Your task to perform on an android device: turn off airplane mode Image 0: 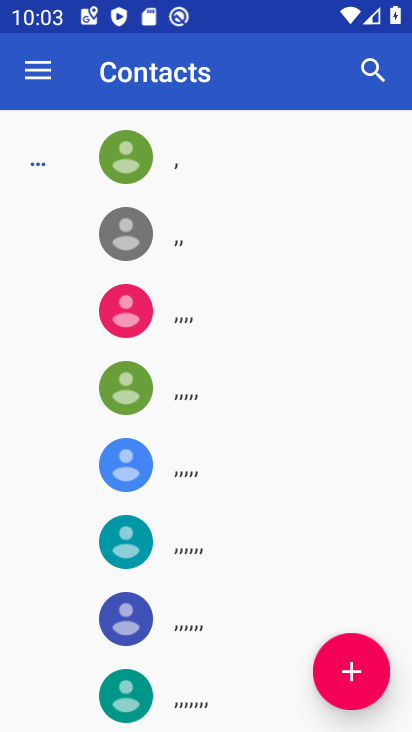
Step 0: press home button
Your task to perform on an android device: turn off airplane mode Image 1: 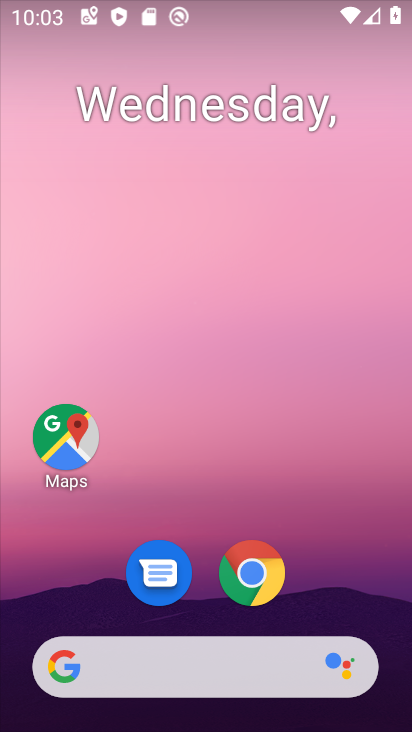
Step 1: drag from (361, 552) to (386, 124)
Your task to perform on an android device: turn off airplane mode Image 2: 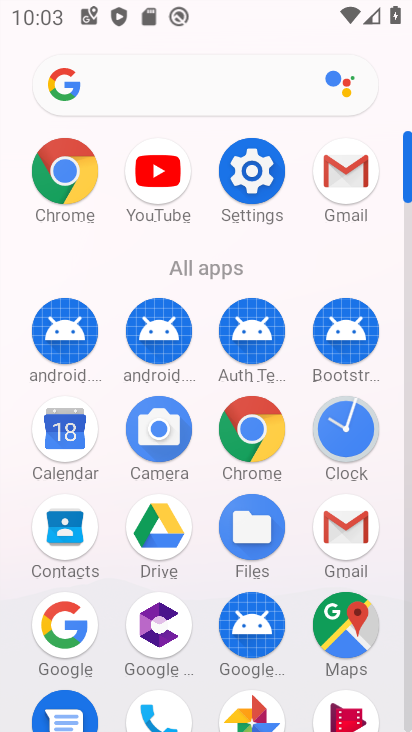
Step 2: click (259, 191)
Your task to perform on an android device: turn off airplane mode Image 3: 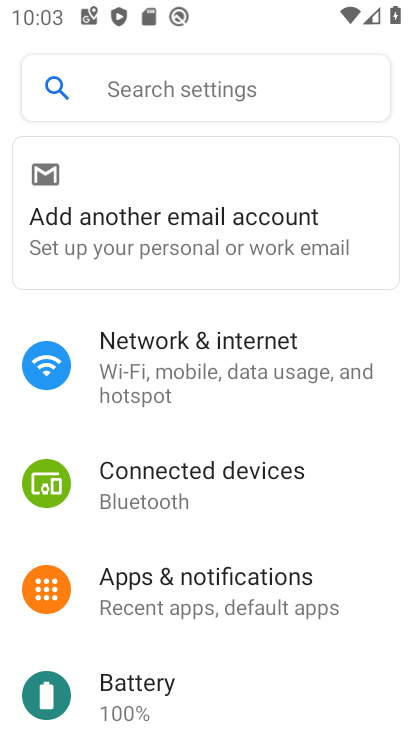
Step 3: drag from (370, 645) to (364, 485)
Your task to perform on an android device: turn off airplane mode Image 4: 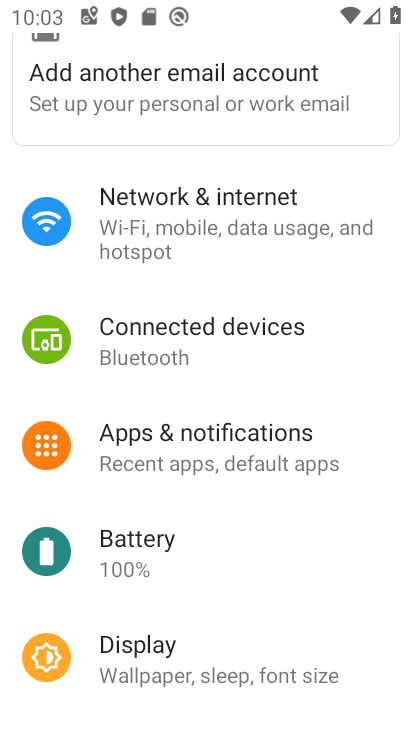
Step 4: drag from (357, 621) to (361, 507)
Your task to perform on an android device: turn off airplane mode Image 5: 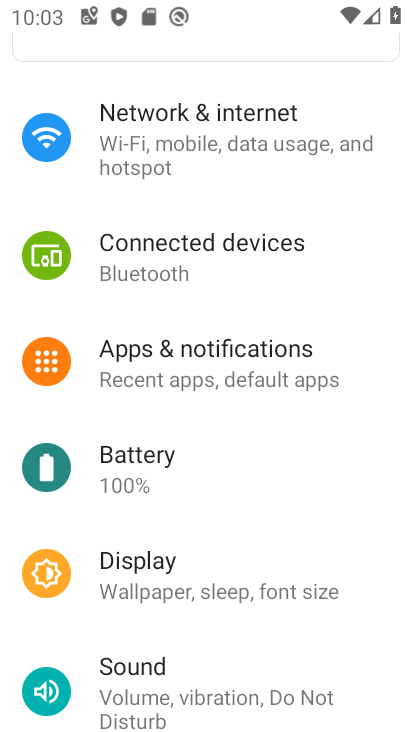
Step 5: drag from (344, 637) to (354, 521)
Your task to perform on an android device: turn off airplane mode Image 6: 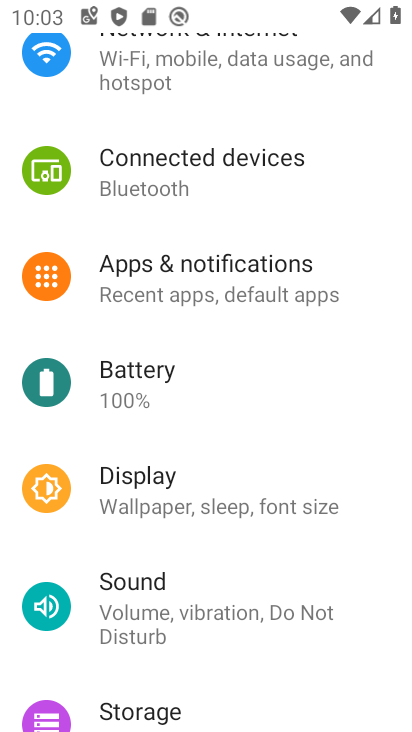
Step 6: drag from (345, 649) to (351, 562)
Your task to perform on an android device: turn off airplane mode Image 7: 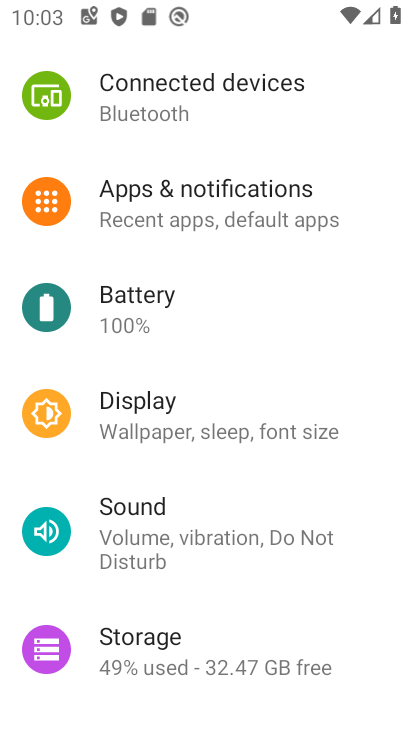
Step 7: drag from (336, 629) to (344, 492)
Your task to perform on an android device: turn off airplane mode Image 8: 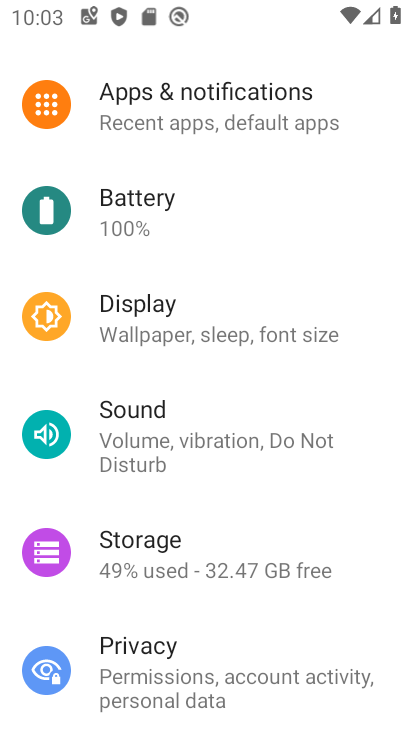
Step 8: drag from (352, 621) to (369, 529)
Your task to perform on an android device: turn off airplane mode Image 9: 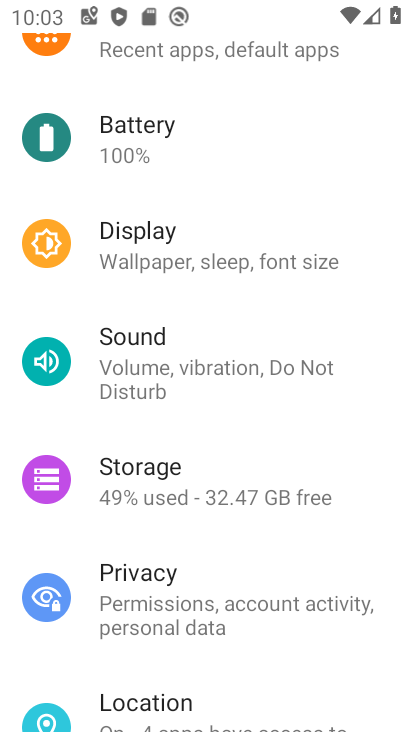
Step 9: drag from (350, 660) to (353, 523)
Your task to perform on an android device: turn off airplane mode Image 10: 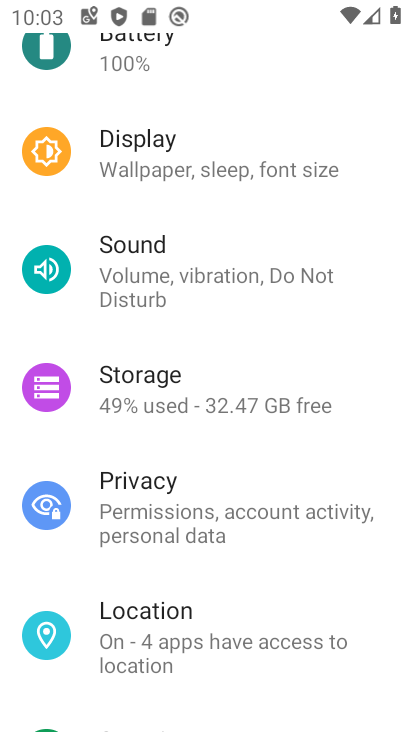
Step 10: drag from (350, 688) to (366, 541)
Your task to perform on an android device: turn off airplane mode Image 11: 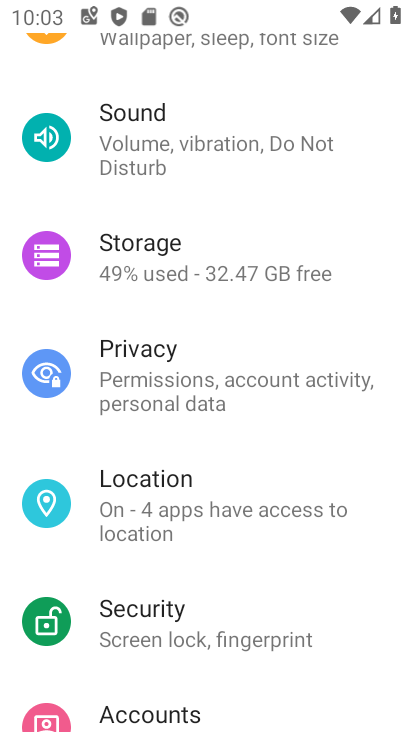
Step 11: drag from (360, 657) to (363, 546)
Your task to perform on an android device: turn off airplane mode Image 12: 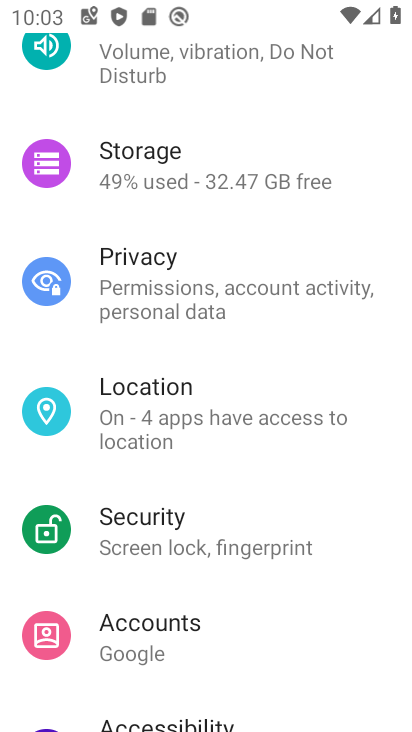
Step 12: drag from (356, 661) to (354, 573)
Your task to perform on an android device: turn off airplane mode Image 13: 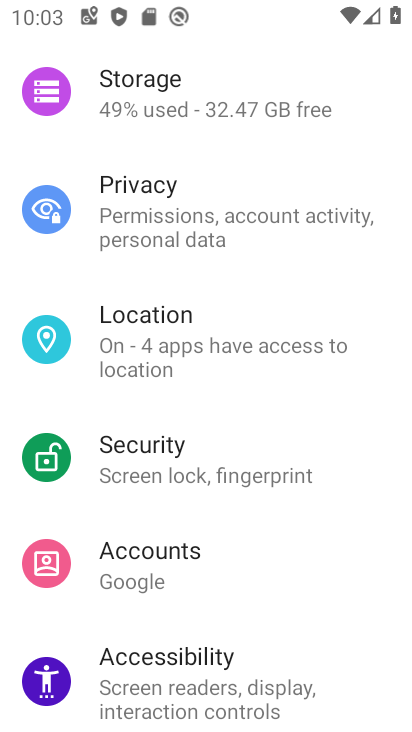
Step 13: drag from (355, 676) to (357, 549)
Your task to perform on an android device: turn off airplane mode Image 14: 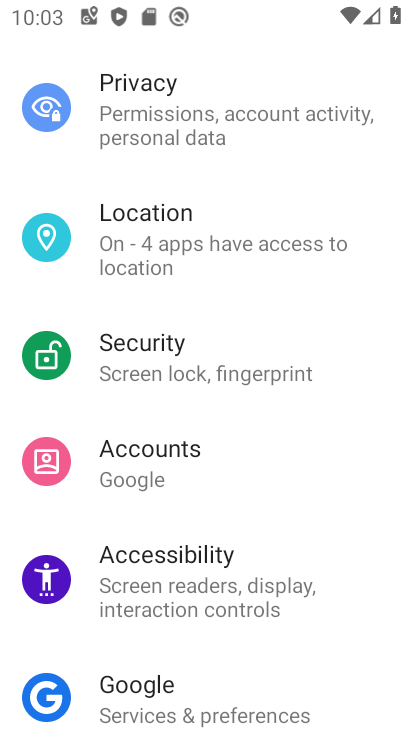
Step 14: drag from (362, 562) to (379, 366)
Your task to perform on an android device: turn off airplane mode Image 15: 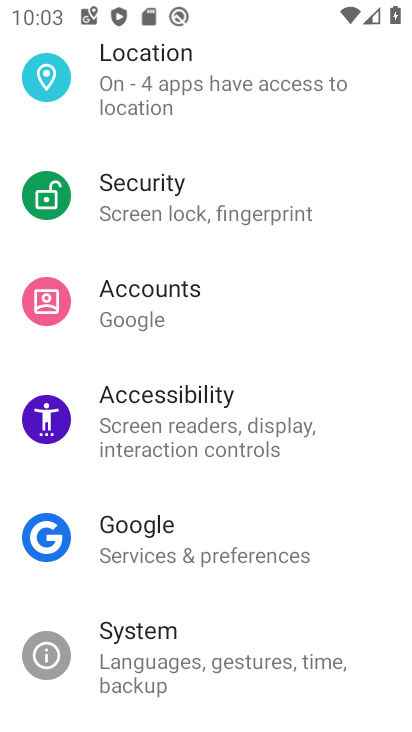
Step 15: drag from (364, 555) to (365, 379)
Your task to perform on an android device: turn off airplane mode Image 16: 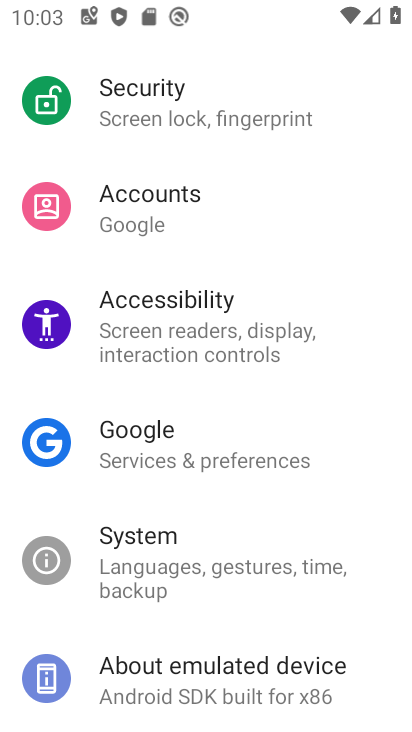
Step 16: drag from (353, 556) to (357, 391)
Your task to perform on an android device: turn off airplane mode Image 17: 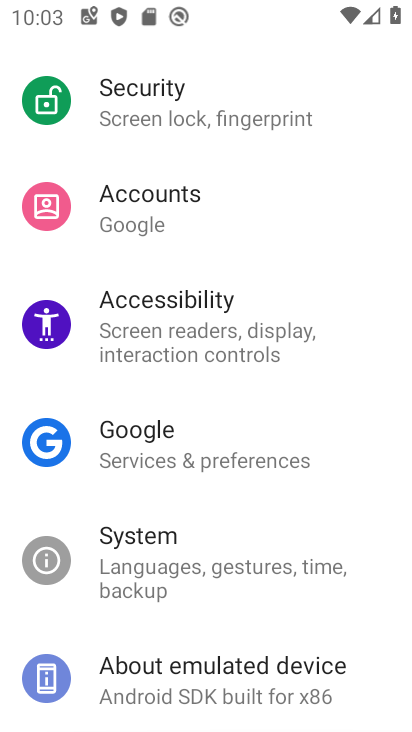
Step 17: drag from (351, 254) to (354, 439)
Your task to perform on an android device: turn off airplane mode Image 18: 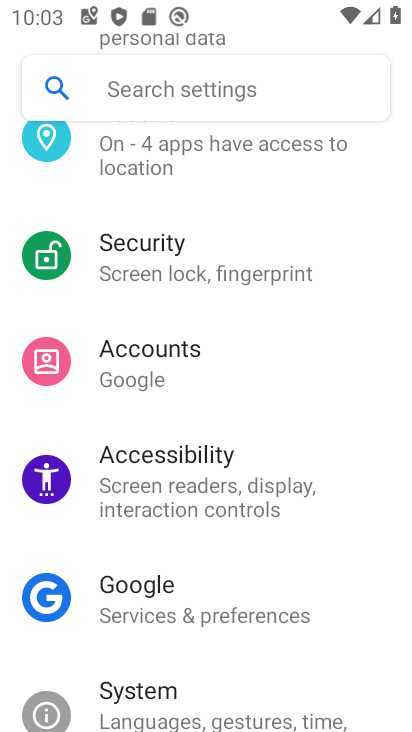
Step 18: drag from (350, 227) to (350, 373)
Your task to perform on an android device: turn off airplane mode Image 19: 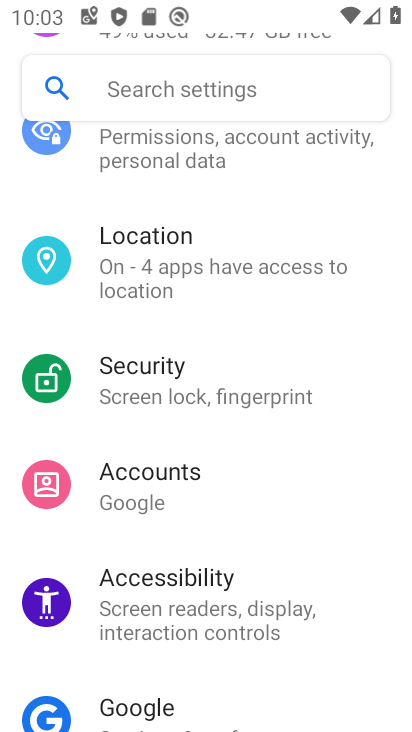
Step 19: drag from (372, 188) to (353, 368)
Your task to perform on an android device: turn off airplane mode Image 20: 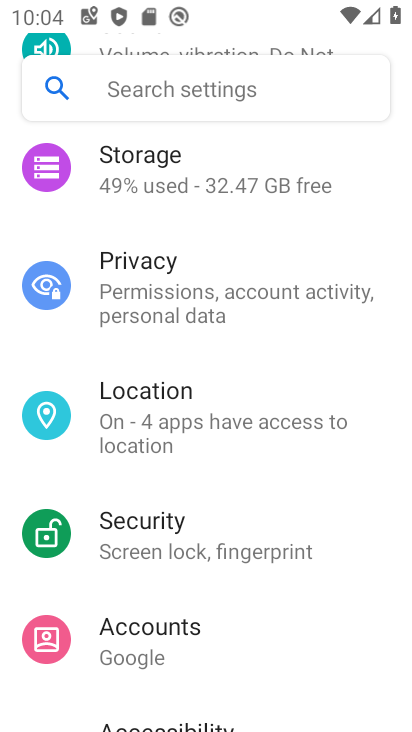
Step 20: drag from (365, 225) to (350, 354)
Your task to perform on an android device: turn off airplane mode Image 21: 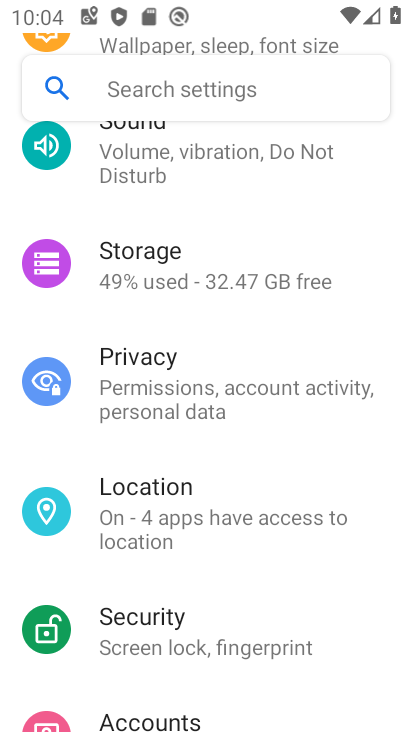
Step 21: drag from (377, 196) to (370, 342)
Your task to perform on an android device: turn off airplane mode Image 22: 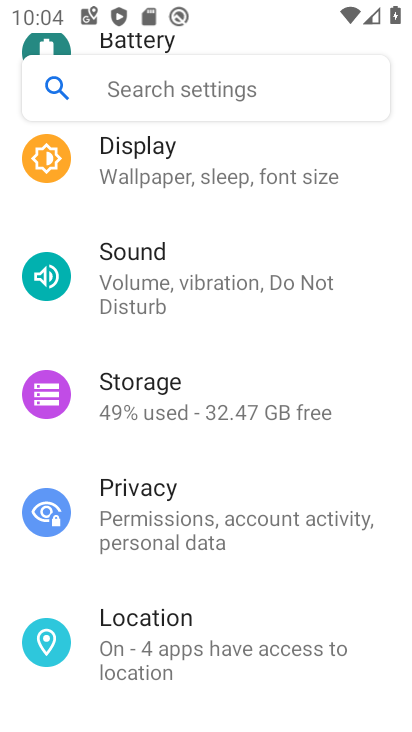
Step 22: drag from (372, 181) to (372, 318)
Your task to perform on an android device: turn off airplane mode Image 23: 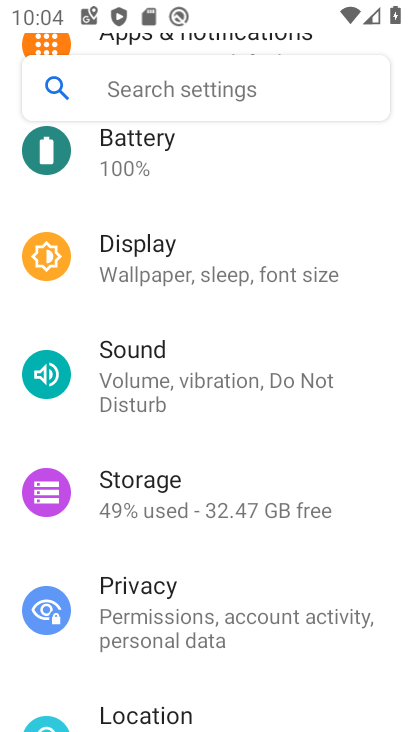
Step 23: drag from (363, 167) to (357, 310)
Your task to perform on an android device: turn off airplane mode Image 24: 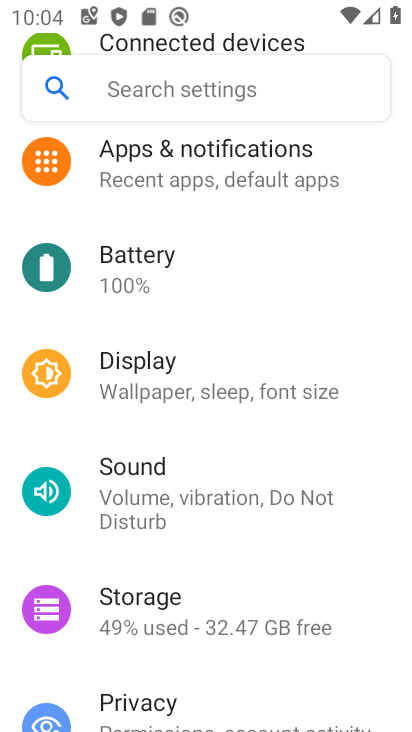
Step 24: drag from (358, 199) to (360, 314)
Your task to perform on an android device: turn off airplane mode Image 25: 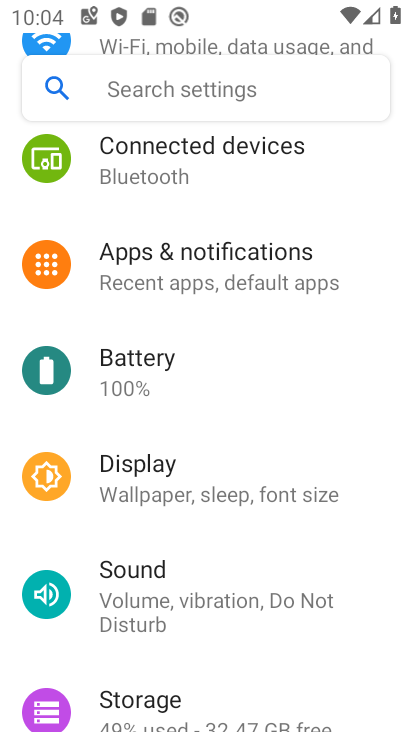
Step 25: drag from (359, 185) to (367, 343)
Your task to perform on an android device: turn off airplane mode Image 26: 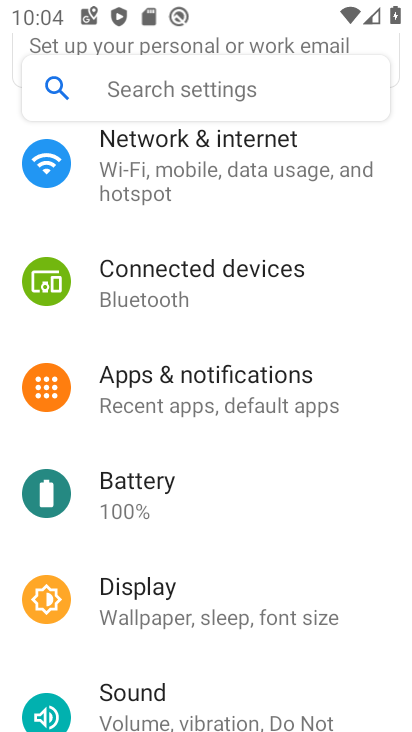
Step 26: drag from (360, 141) to (342, 278)
Your task to perform on an android device: turn off airplane mode Image 27: 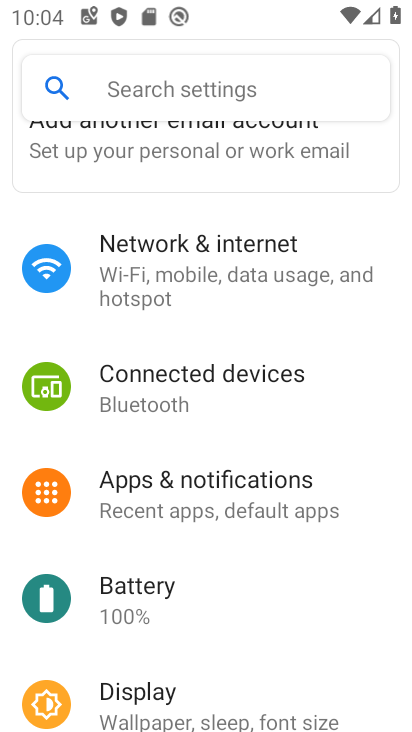
Step 27: click (332, 269)
Your task to perform on an android device: turn off airplane mode Image 28: 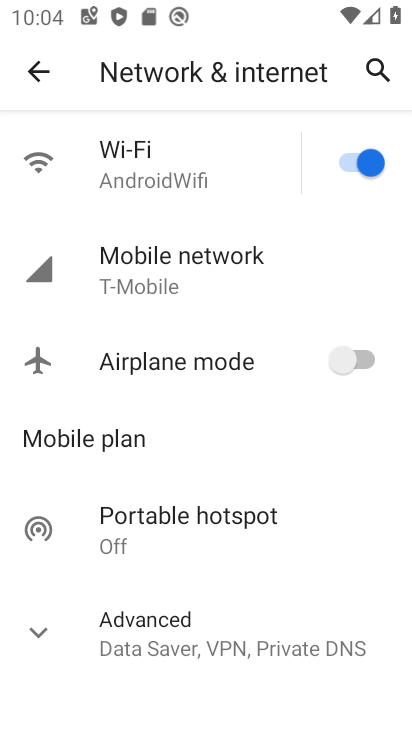
Step 28: task complete